Your task to perform on an android device: Do I have any events this weekend? Image 0: 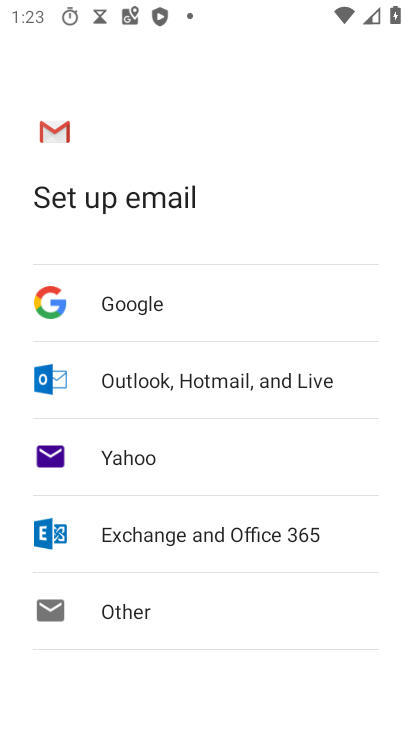
Step 0: press home button
Your task to perform on an android device: Do I have any events this weekend? Image 1: 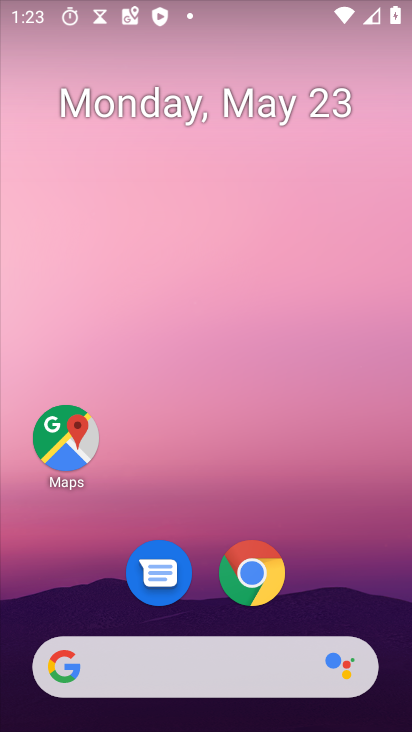
Step 1: drag from (178, 667) to (317, 117)
Your task to perform on an android device: Do I have any events this weekend? Image 2: 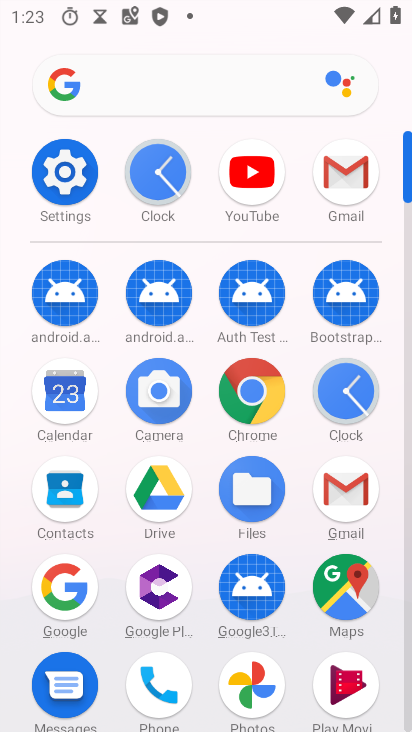
Step 2: click (71, 415)
Your task to perform on an android device: Do I have any events this weekend? Image 3: 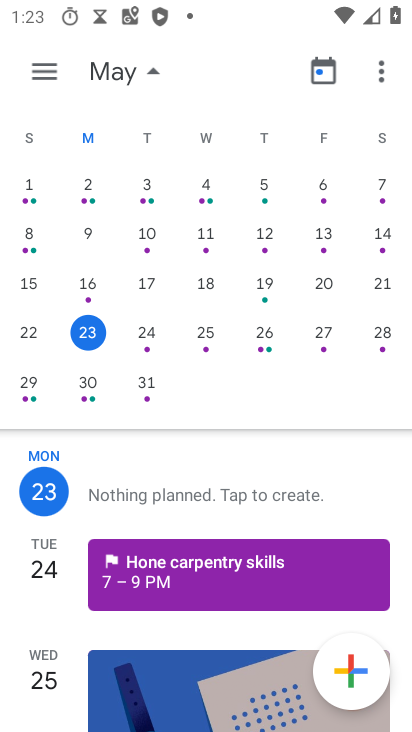
Step 3: click (378, 341)
Your task to perform on an android device: Do I have any events this weekend? Image 4: 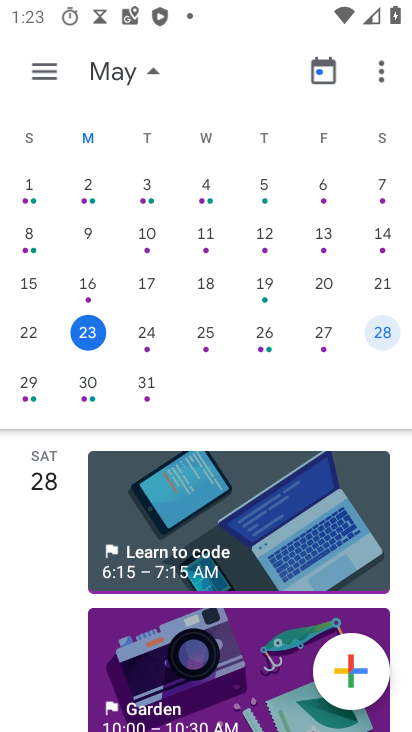
Step 4: click (30, 69)
Your task to perform on an android device: Do I have any events this weekend? Image 5: 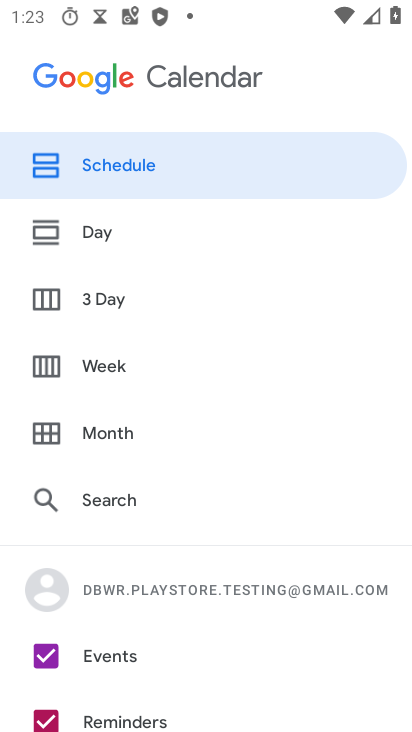
Step 5: click (106, 233)
Your task to perform on an android device: Do I have any events this weekend? Image 6: 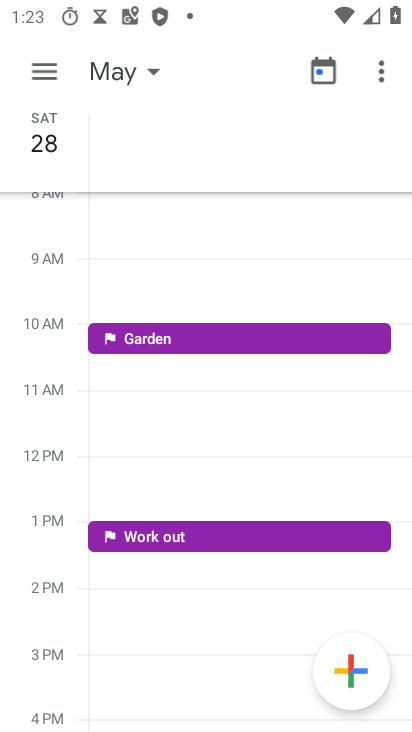
Step 6: click (41, 75)
Your task to perform on an android device: Do I have any events this weekend? Image 7: 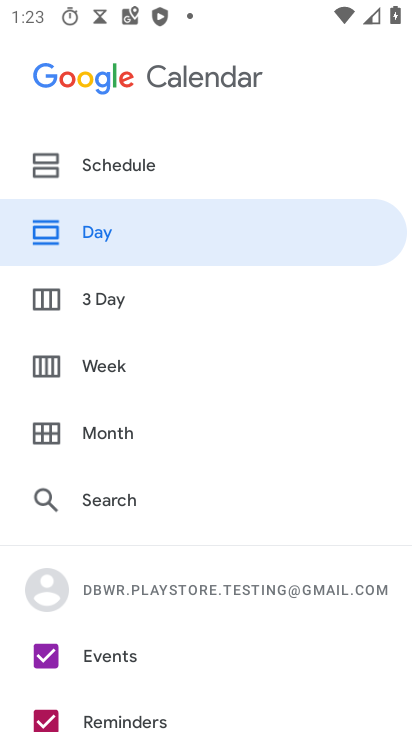
Step 7: click (125, 163)
Your task to perform on an android device: Do I have any events this weekend? Image 8: 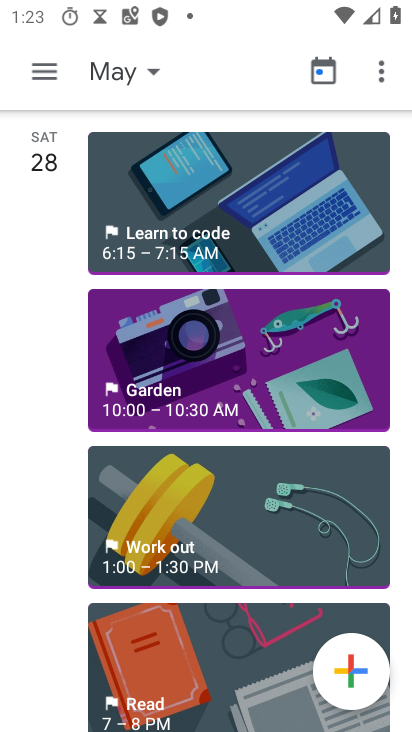
Step 8: click (227, 323)
Your task to perform on an android device: Do I have any events this weekend? Image 9: 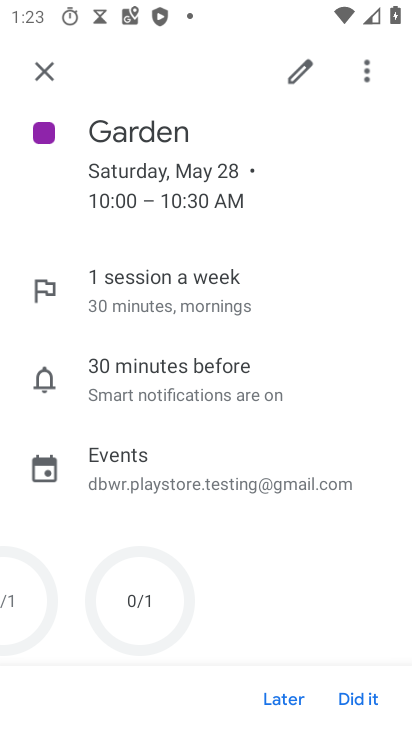
Step 9: task complete